Your task to perform on an android device: Open accessibility settings Image 0: 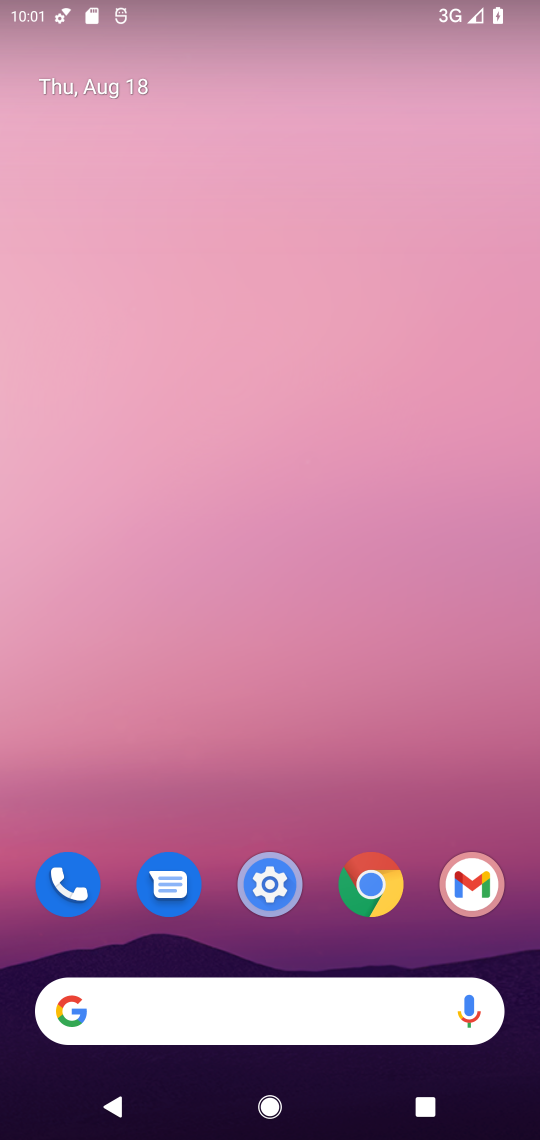
Step 0: click (261, 889)
Your task to perform on an android device: Open accessibility settings Image 1: 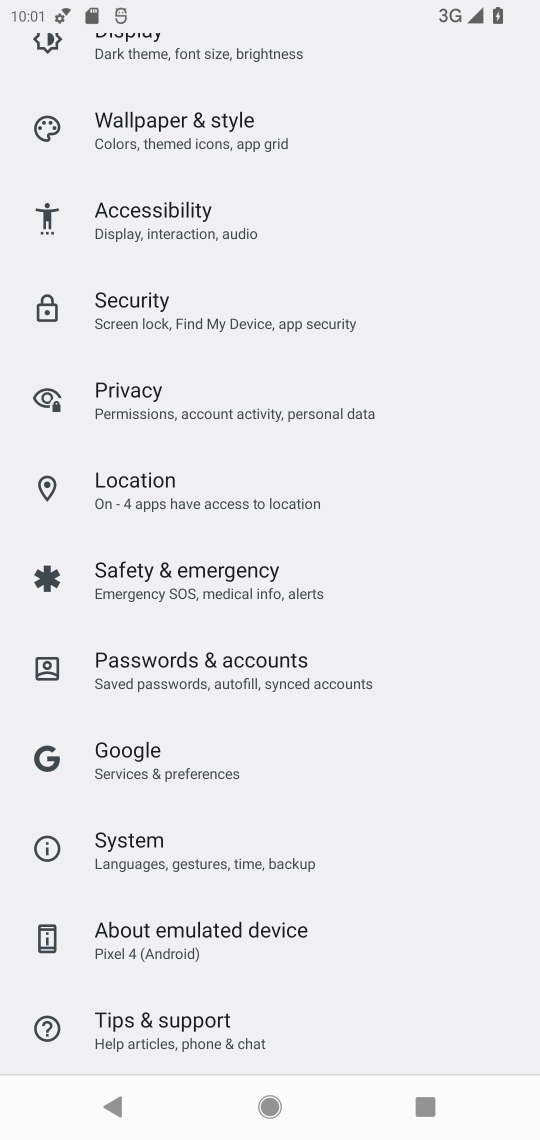
Step 1: click (145, 195)
Your task to perform on an android device: Open accessibility settings Image 2: 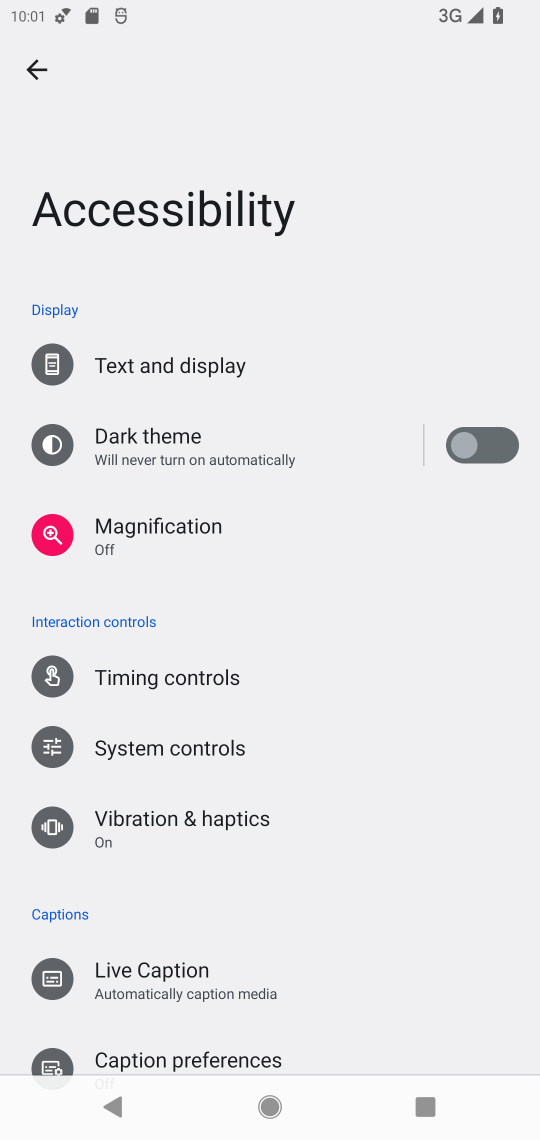
Step 2: task complete